Your task to perform on an android device: turn notification dots off Image 0: 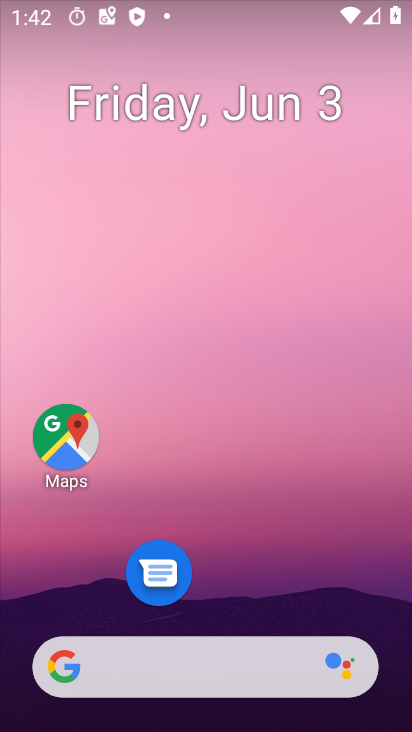
Step 0: drag from (320, 565) to (315, 15)
Your task to perform on an android device: turn notification dots off Image 1: 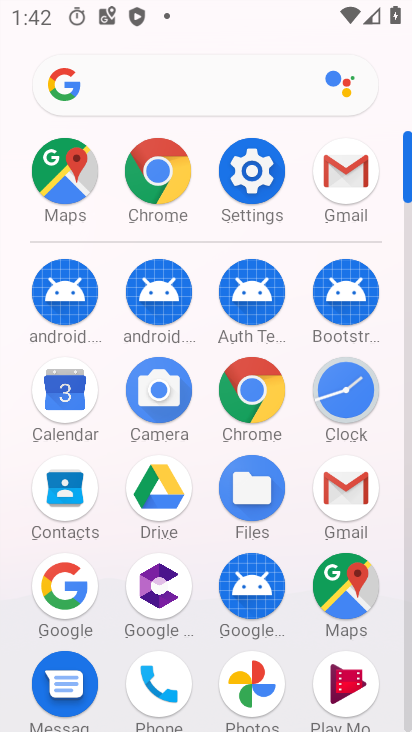
Step 1: click (246, 175)
Your task to perform on an android device: turn notification dots off Image 2: 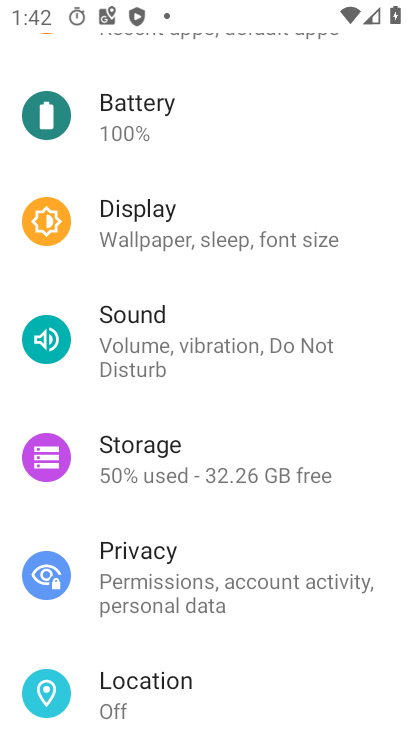
Step 2: drag from (286, 250) to (267, 724)
Your task to perform on an android device: turn notification dots off Image 3: 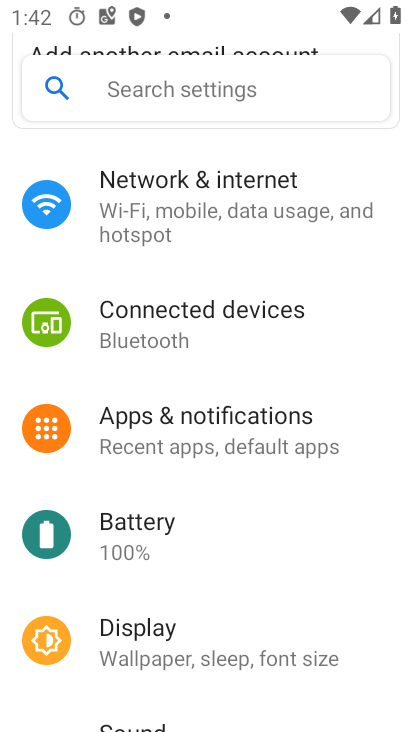
Step 3: click (221, 430)
Your task to perform on an android device: turn notification dots off Image 4: 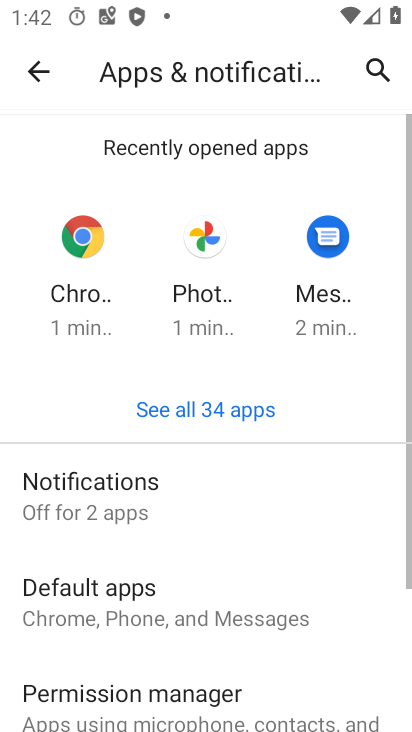
Step 4: drag from (250, 716) to (300, 288)
Your task to perform on an android device: turn notification dots off Image 5: 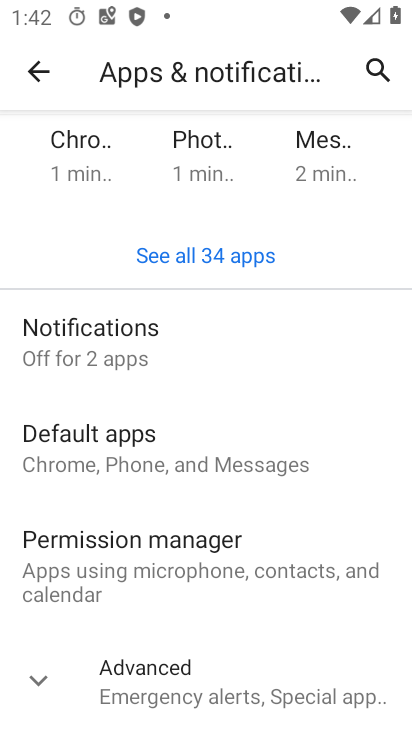
Step 5: click (201, 337)
Your task to perform on an android device: turn notification dots off Image 6: 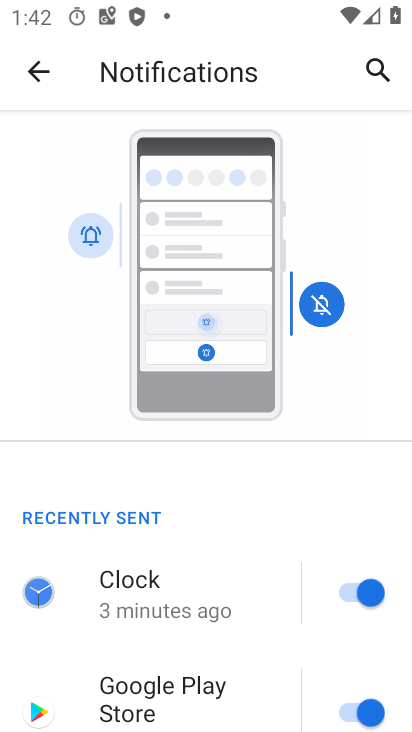
Step 6: drag from (270, 690) to (285, 100)
Your task to perform on an android device: turn notification dots off Image 7: 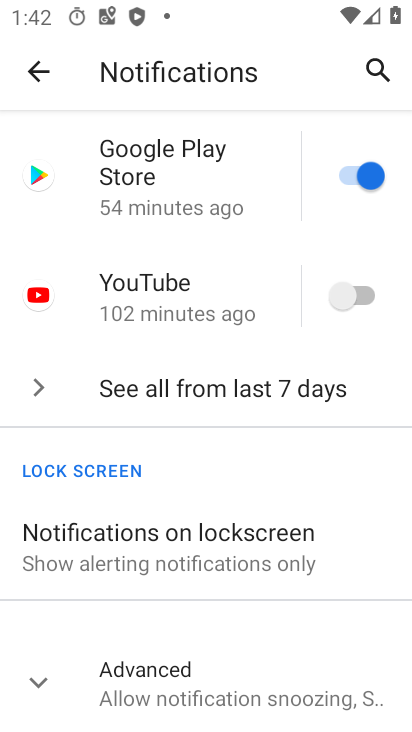
Step 7: click (251, 699)
Your task to perform on an android device: turn notification dots off Image 8: 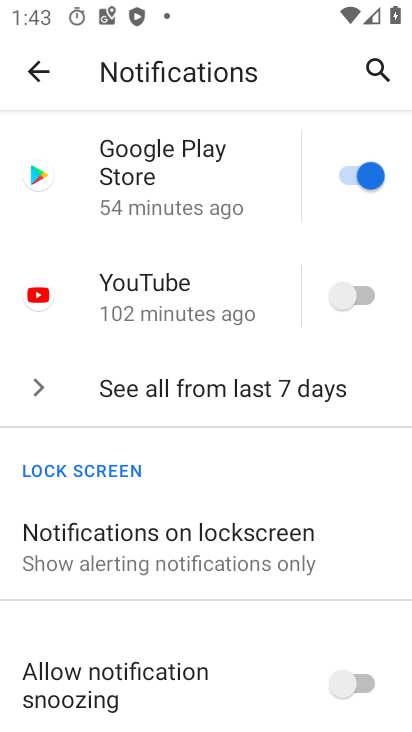
Step 8: drag from (255, 692) to (373, 233)
Your task to perform on an android device: turn notification dots off Image 9: 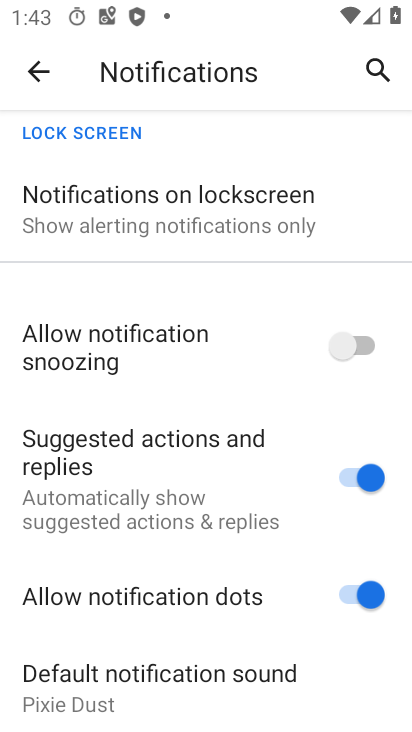
Step 9: click (348, 591)
Your task to perform on an android device: turn notification dots off Image 10: 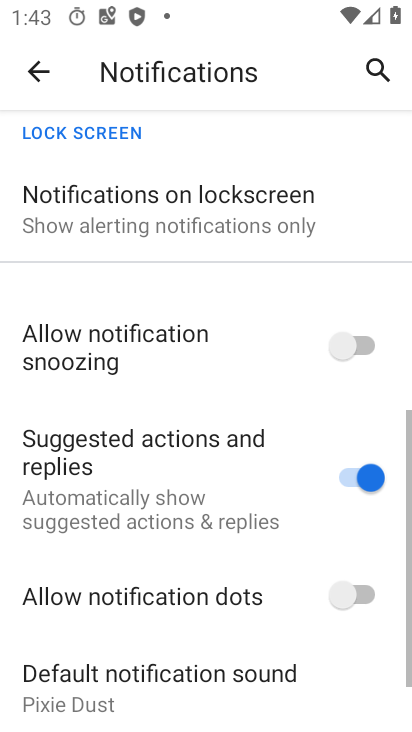
Step 10: task complete